Your task to perform on an android device: find snoozed emails in the gmail app Image 0: 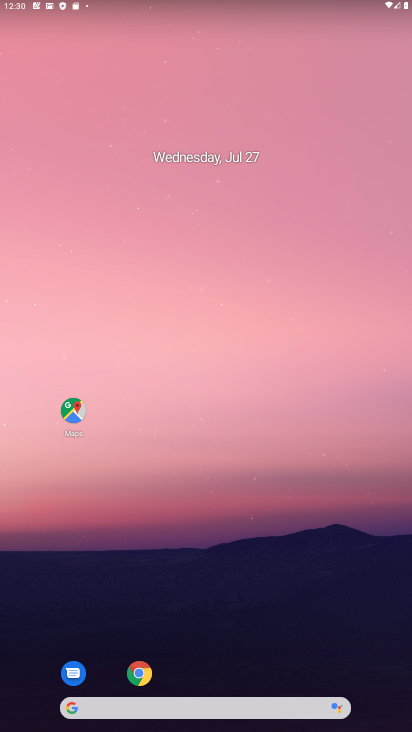
Step 0: drag from (247, 649) to (263, 182)
Your task to perform on an android device: find snoozed emails in the gmail app Image 1: 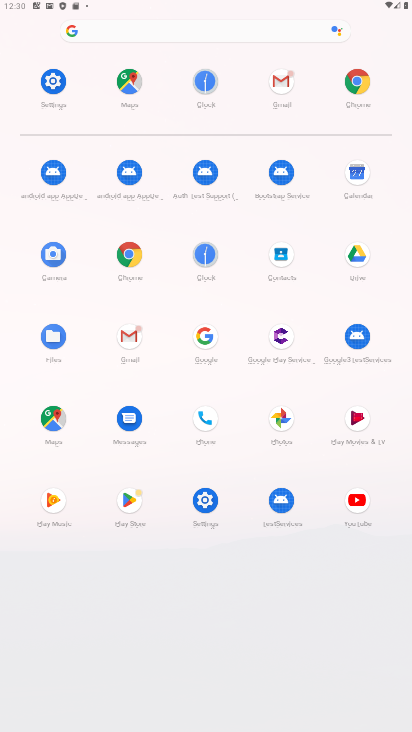
Step 1: click (121, 333)
Your task to perform on an android device: find snoozed emails in the gmail app Image 2: 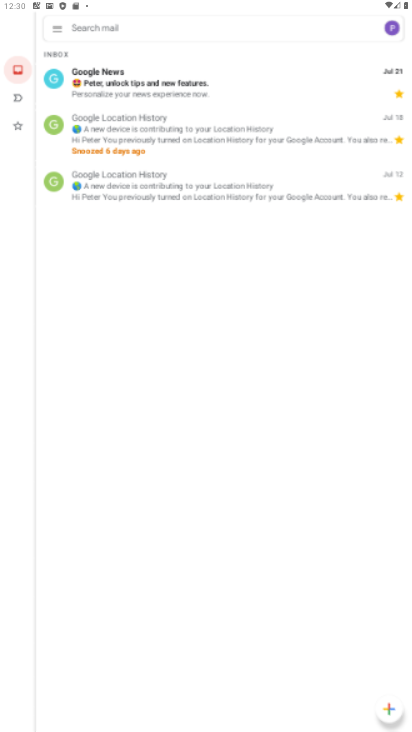
Step 2: click (54, 24)
Your task to perform on an android device: find snoozed emails in the gmail app Image 3: 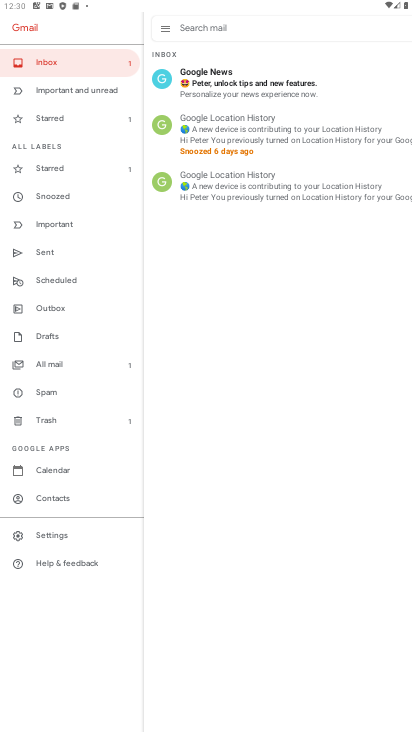
Step 3: click (62, 199)
Your task to perform on an android device: find snoozed emails in the gmail app Image 4: 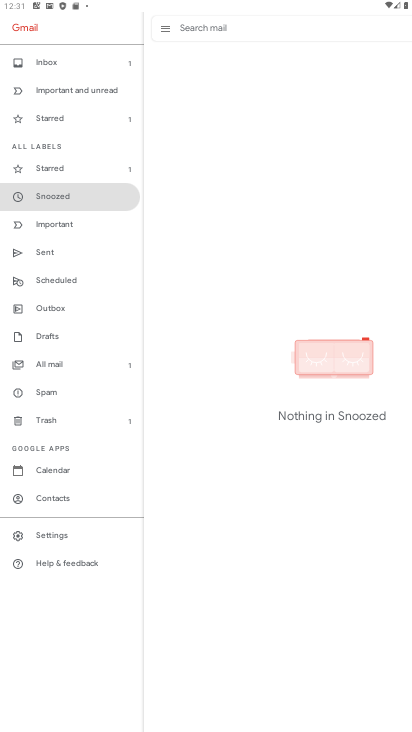
Step 4: click (58, 196)
Your task to perform on an android device: find snoozed emails in the gmail app Image 5: 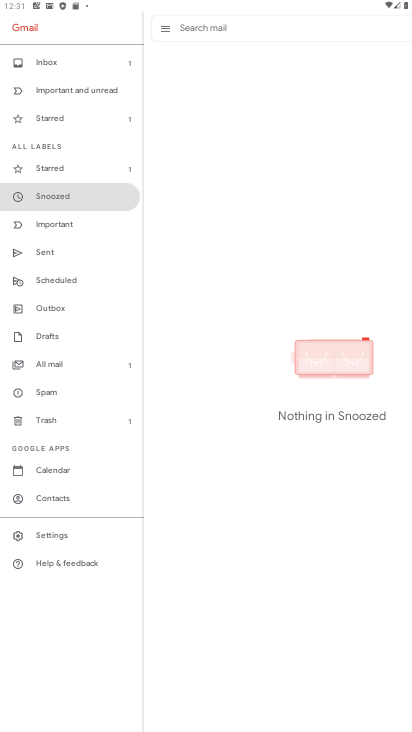
Step 5: task complete